Your task to perform on an android device: See recent photos Image 0: 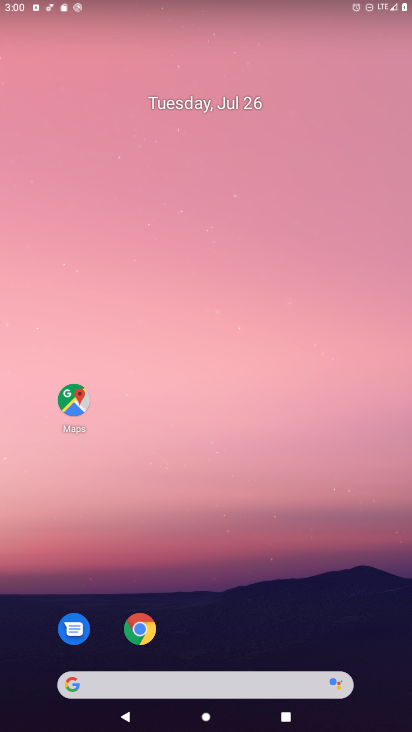
Step 0: drag from (379, 678) to (346, 165)
Your task to perform on an android device: See recent photos Image 1: 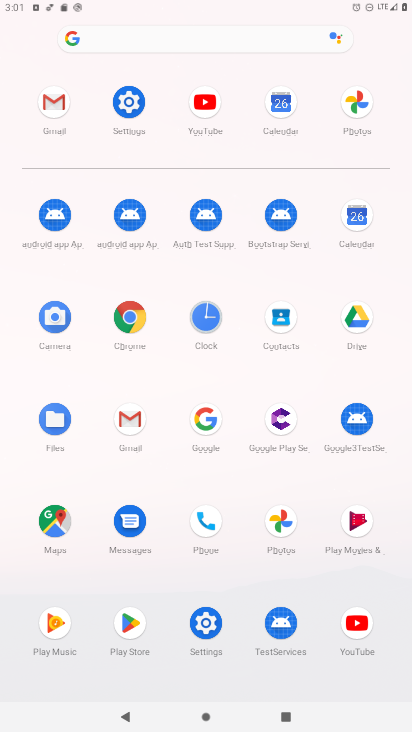
Step 1: click (280, 520)
Your task to perform on an android device: See recent photos Image 2: 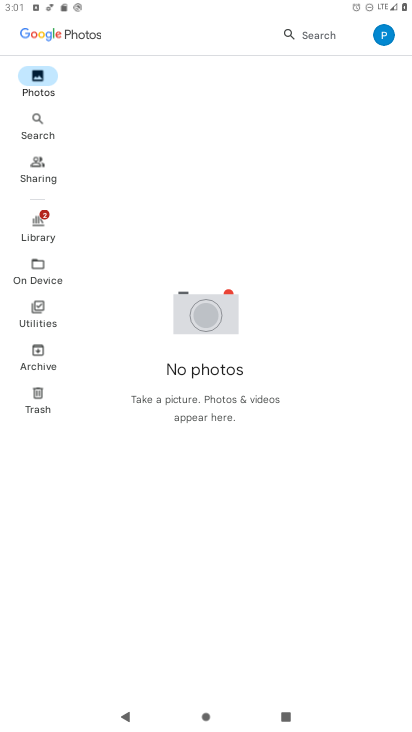
Step 2: task complete